Your task to perform on an android device: turn on location history Image 0: 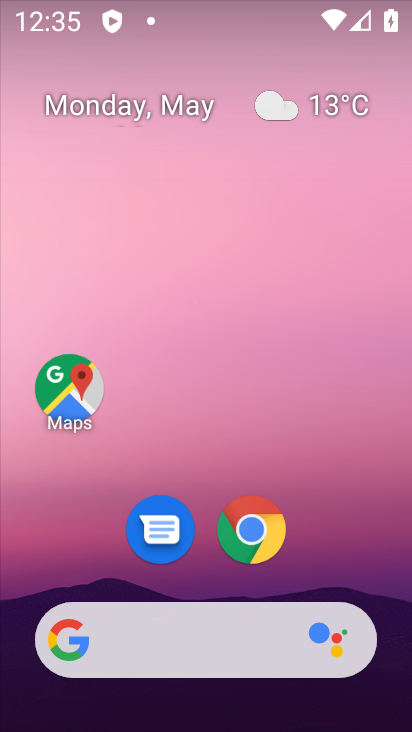
Step 0: drag from (185, 581) to (232, 271)
Your task to perform on an android device: turn on location history Image 1: 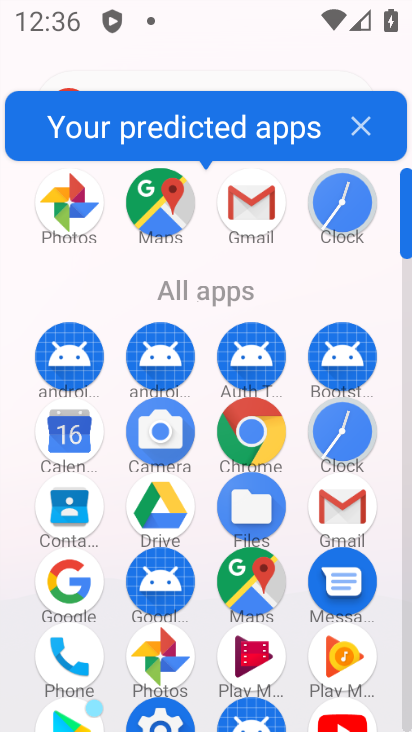
Step 1: drag from (201, 625) to (272, 346)
Your task to perform on an android device: turn on location history Image 2: 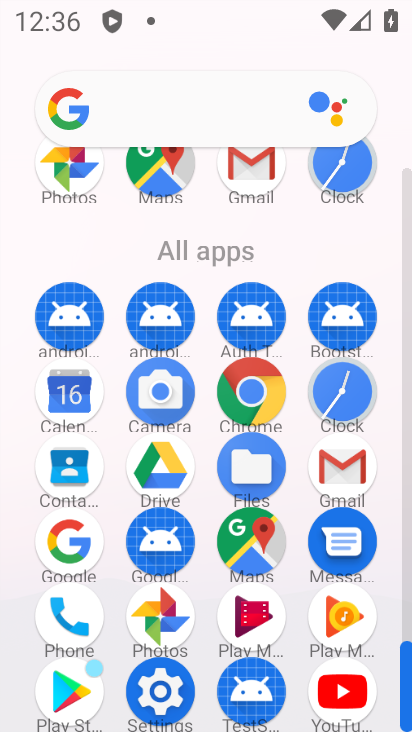
Step 2: click (171, 693)
Your task to perform on an android device: turn on location history Image 3: 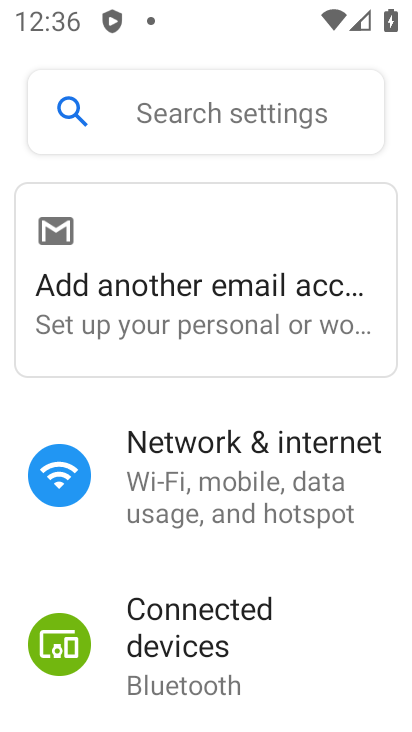
Step 3: drag from (216, 650) to (338, 247)
Your task to perform on an android device: turn on location history Image 4: 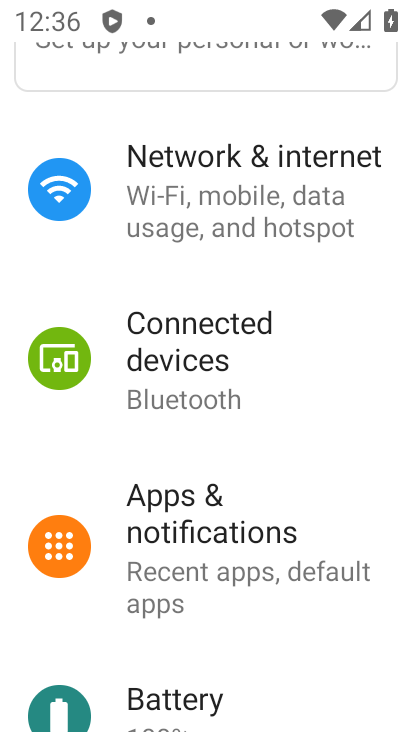
Step 4: drag from (272, 564) to (346, 262)
Your task to perform on an android device: turn on location history Image 5: 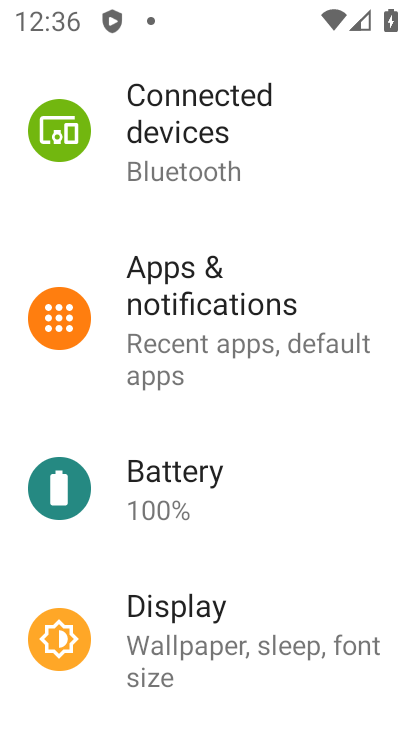
Step 5: drag from (179, 636) to (216, 480)
Your task to perform on an android device: turn on location history Image 6: 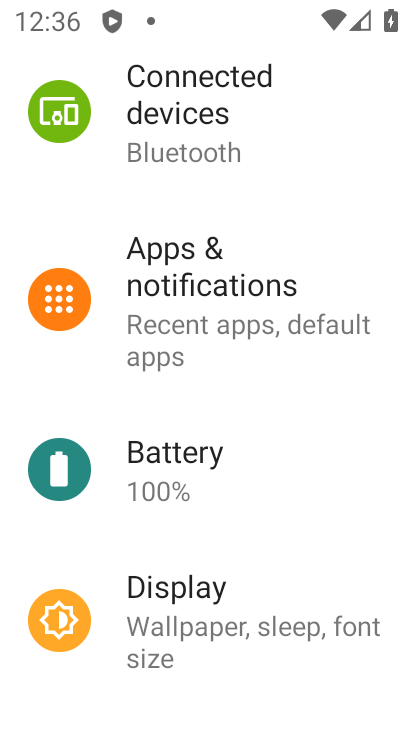
Step 6: drag from (141, 692) to (235, 362)
Your task to perform on an android device: turn on location history Image 7: 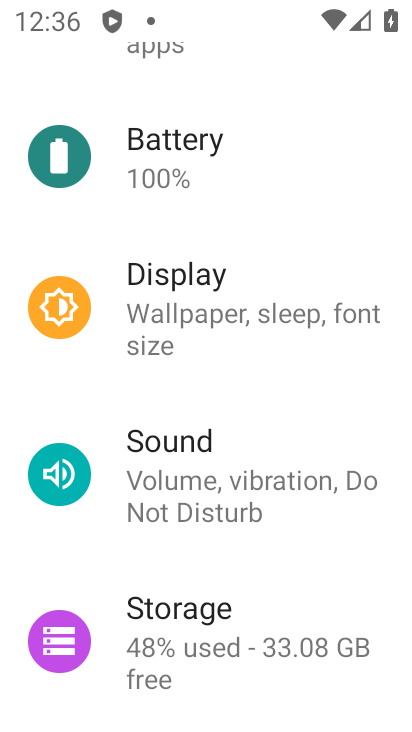
Step 7: drag from (198, 557) to (244, 324)
Your task to perform on an android device: turn on location history Image 8: 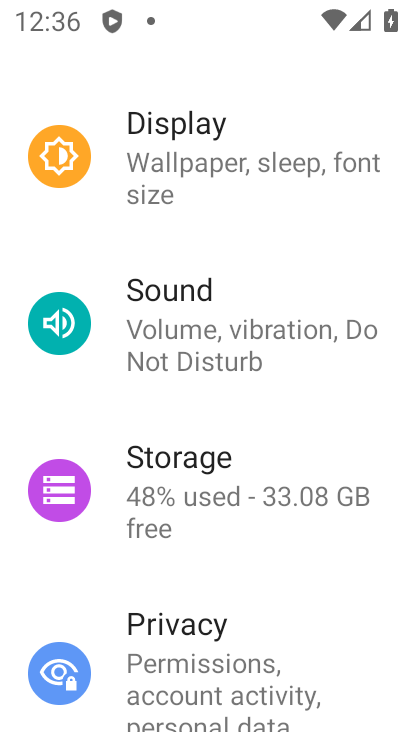
Step 8: drag from (200, 607) to (250, 216)
Your task to perform on an android device: turn on location history Image 9: 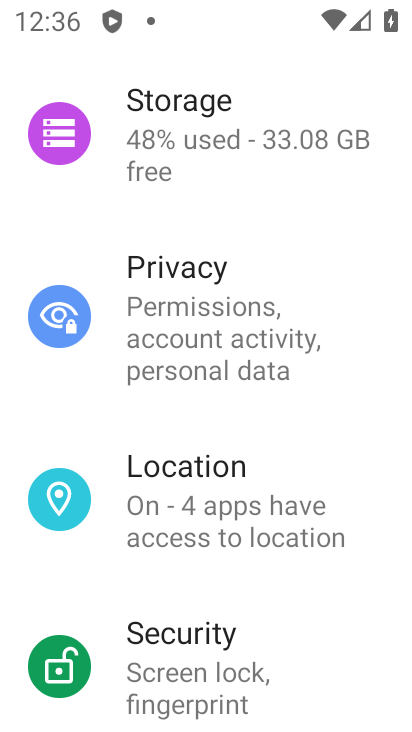
Step 9: click (216, 487)
Your task to perform on an android device: turn on location history Image 10: 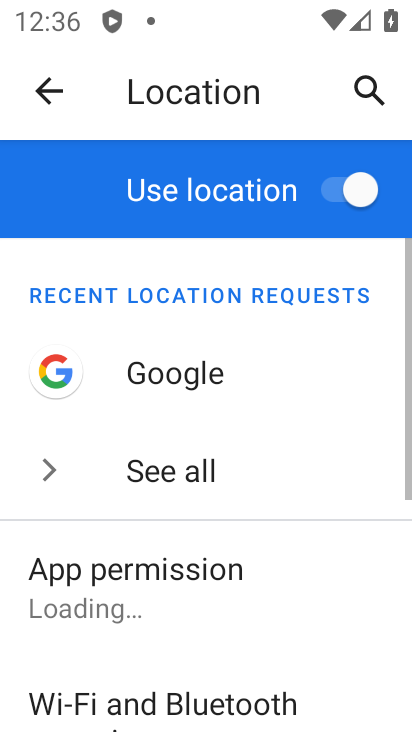
Step 10: drag from (239, 569) to (347, 236)
Your task to perform on an android device: turn on location history Image 11: 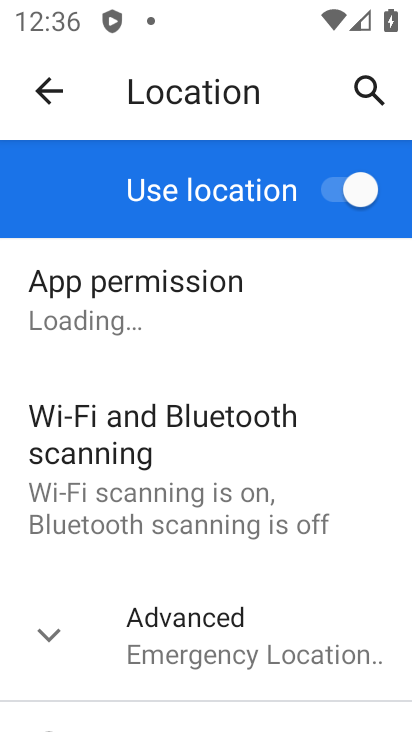
Step 11: drag from (236, 597) to (309, 284)
Your task to perform on an android device: turn on location history Image 12: 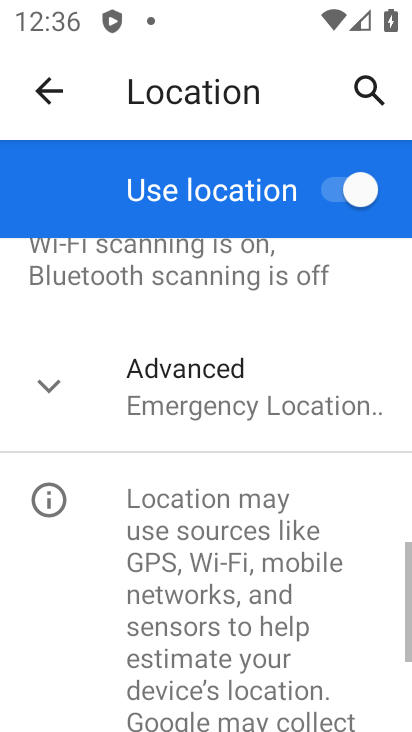
Step 12: click (240, 414)
Your task to perform on an android device: turn on location history Image 13: 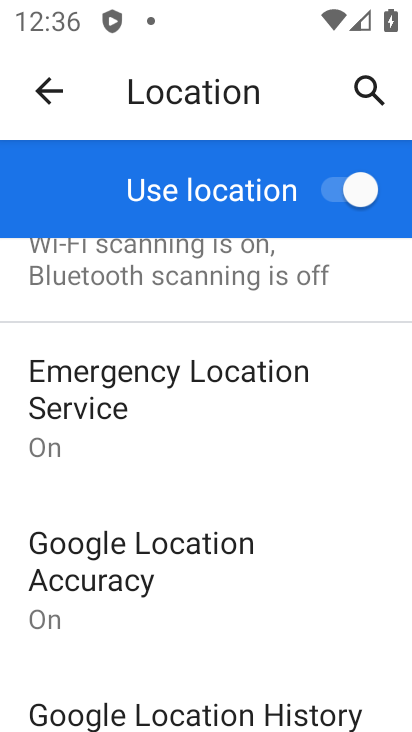
Step 13: drag from (152, 572) to (240, 305)
Your task to perform on an android device: turn on location history Image 14: 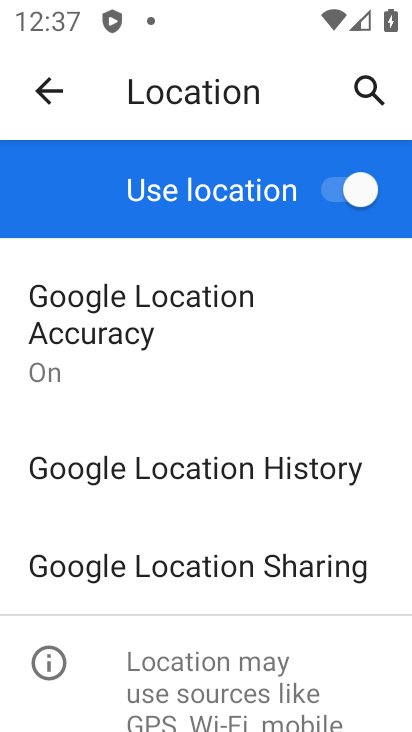
Step 14: click (173, 478)
Your task to perform on an android device: turn on location history Image 15: 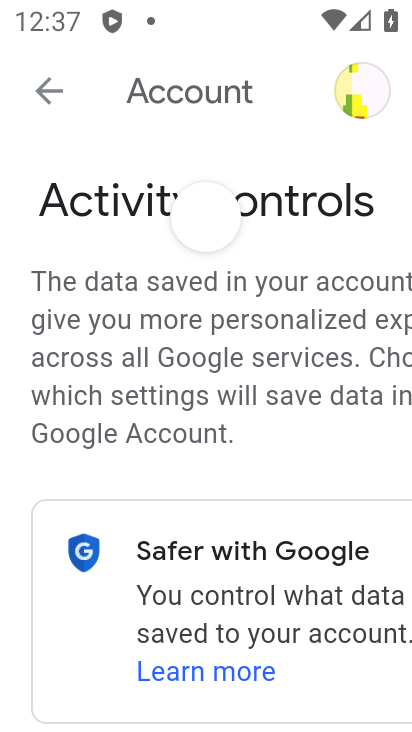
Step 15: drag from (236, 641) to (355, 98)
Your task to perform on an android device: turn on location history Image 16: 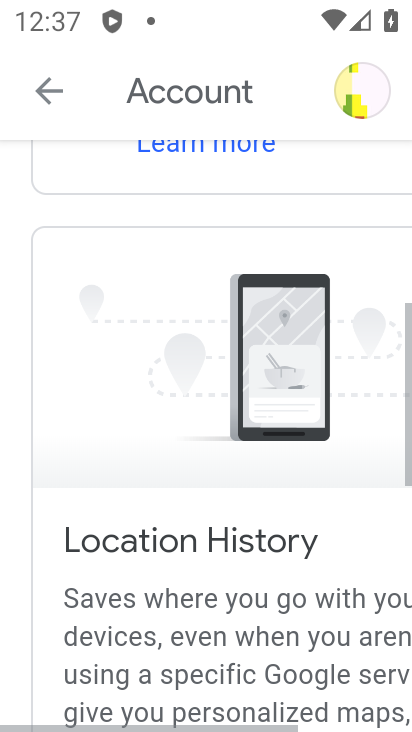
Step 16: drag from (260, 637) to (379, 108)
Your task to perform on an android device: turn on location history Image 17: 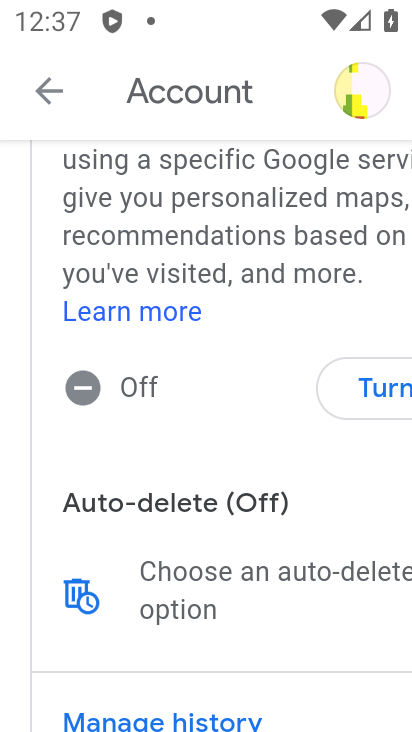
Step 17: click (355, 377)
Your task to perform on an android device: turn on location history Image 18: 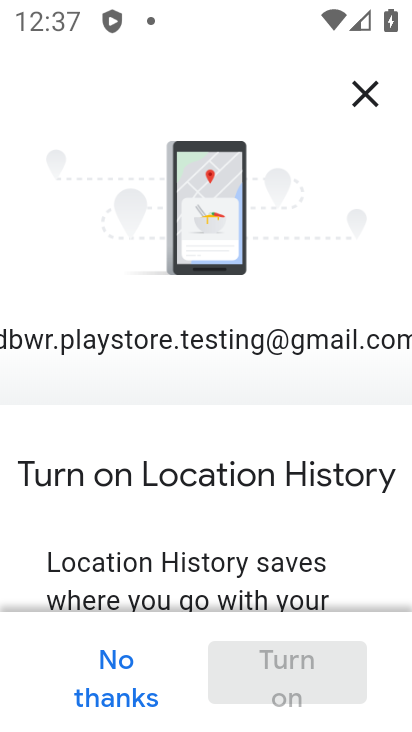
Step 18: drag from (249, 542) to (357, 77)
Your task to perform on an android device: turn on location history Image 19: 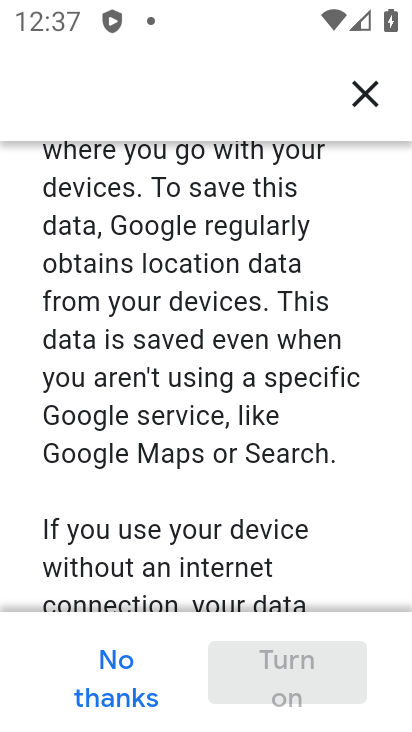
Step 19: drag from (298, 512) to (392, 113)
Your task to perform on an android device: turn on location history Image 20: 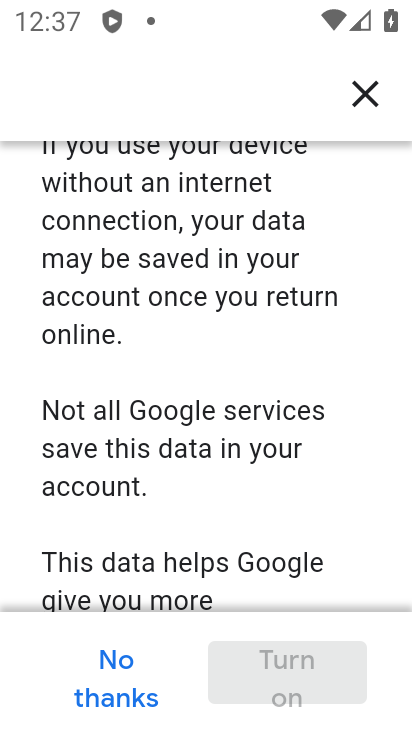
Step 20: drag from (329, 509) to (408, 287)
Your task to perform on an android device: turn on location history Image 21: 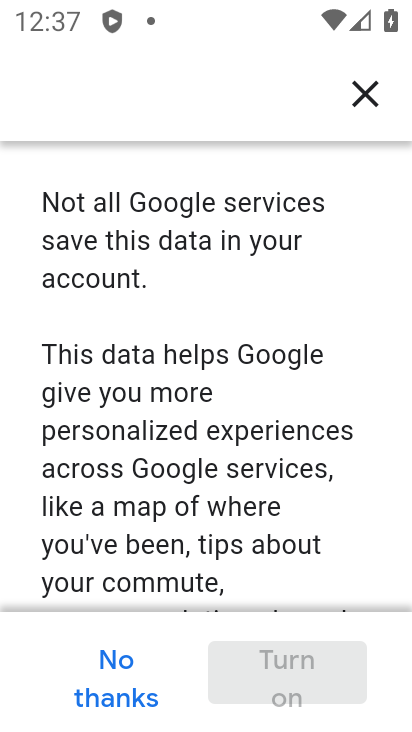
Step 21: drag from (290, 493) to (361, 73)
Your task to perform on an android device: turn on location history Image 22: 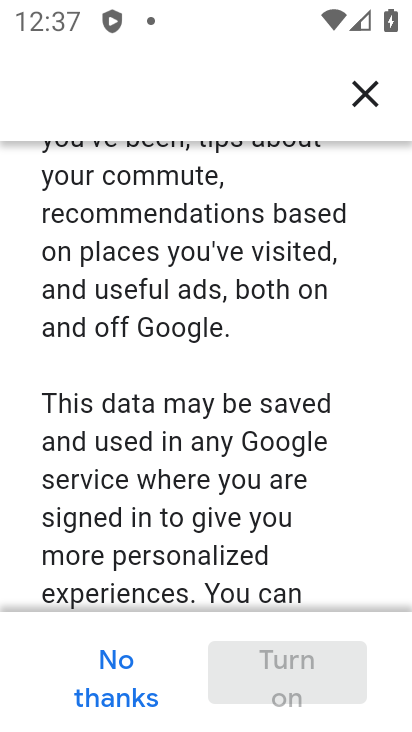
Step 22: drag from (297, 439) to (354, 178)
Your task to perform on an android device: turn on location history Image 23: 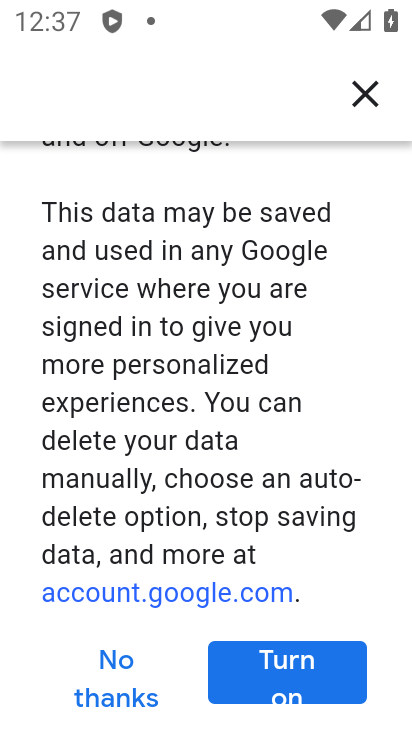
Step 23: drag from (316, 521) to (317, 388)
Your task to perform on an android device: turn on location history Image 24: 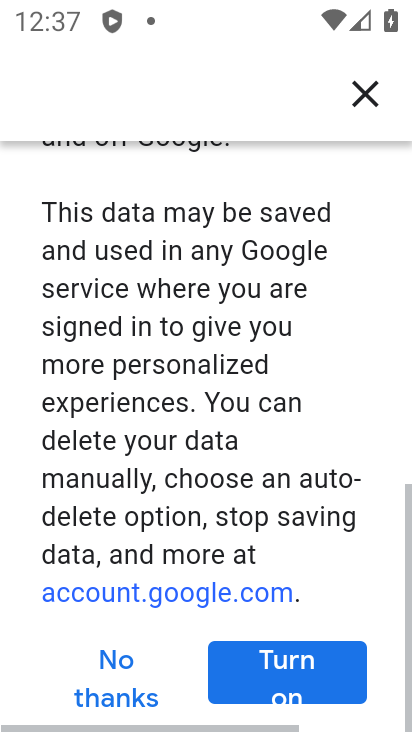
Step 24: click (286, 661)
Your task to perform on an android device: turn on location history Image 25: 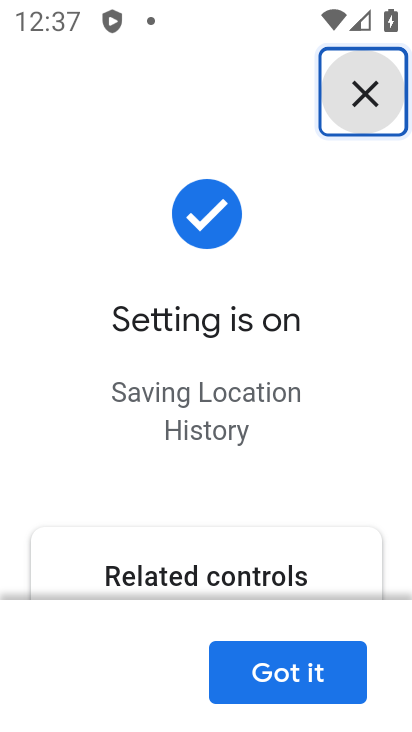
Step 25: click (291, 685)
Your task to perform on an android device: turn on location history Image 26: 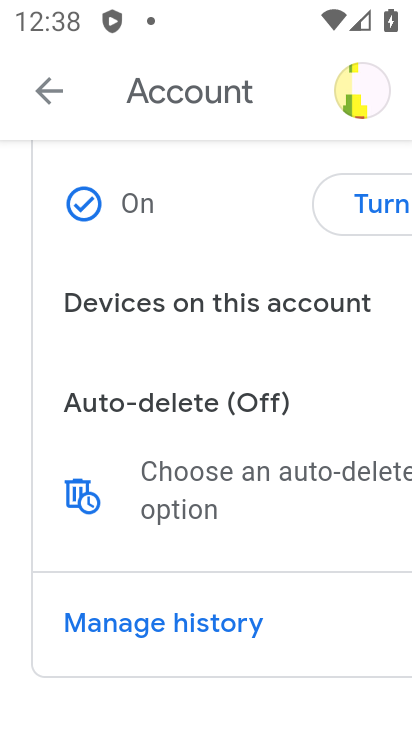
Step 26: task complete